Your task to perform on an android device: Go to location settings Image 0: 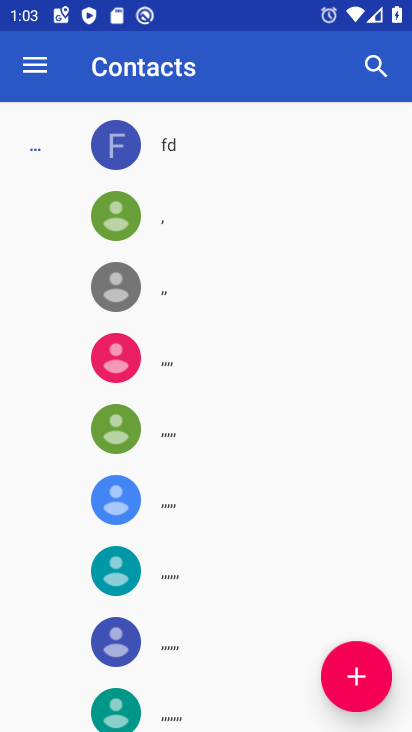
Step 0: press home button
Your task to perform on an android device: Go to location settings Image 1: 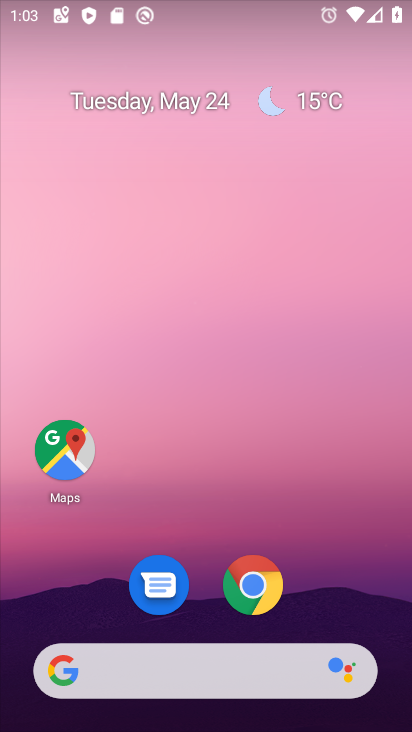
Step 1: drag from (216, 494) to (228, 31)
Your task to perform on an android device: Go to location settings Image 2: 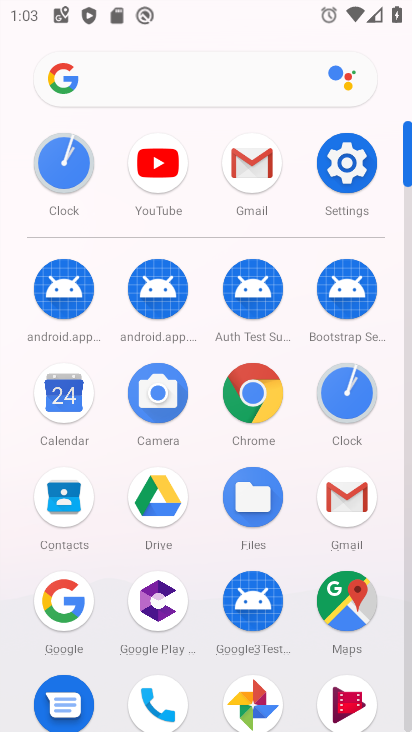
Step 2: click (347, 163)
Your task to perform on an android device: Go to location settings Image 3: 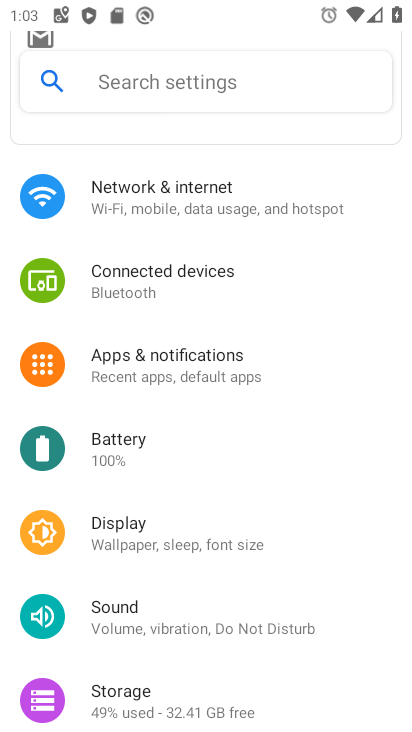
Step 3: drag from (240, 585) to (235, 110)
Your task to perform on an android device: Go to location settings Image 4: 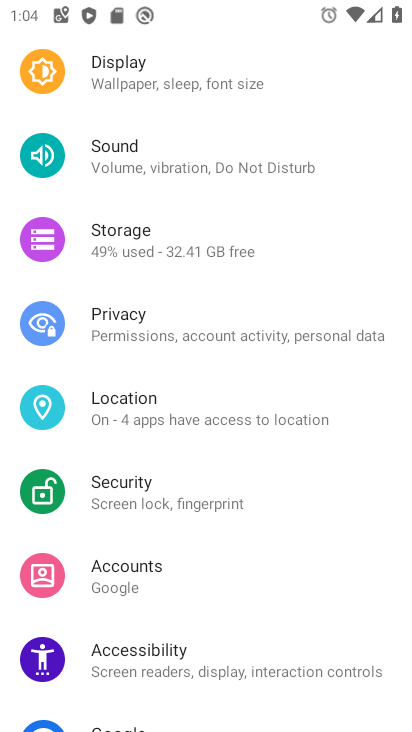
Step 4: click (190, 404)
Your task to perform on an android device: Go to location settings Image 5: 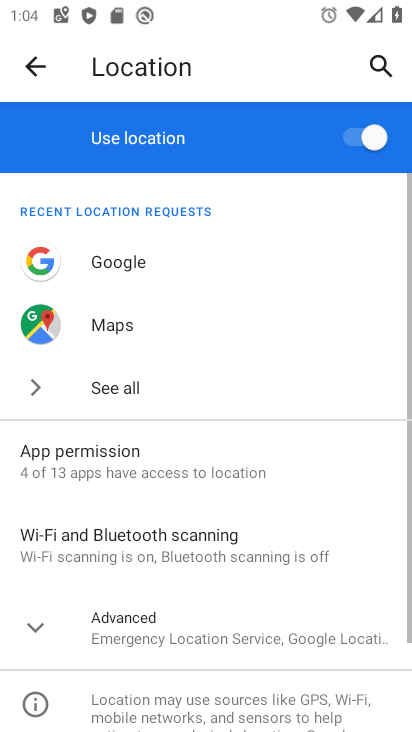
Step 5: task complete